Your task to perform on an android device: Open Wikipedia Image 0: 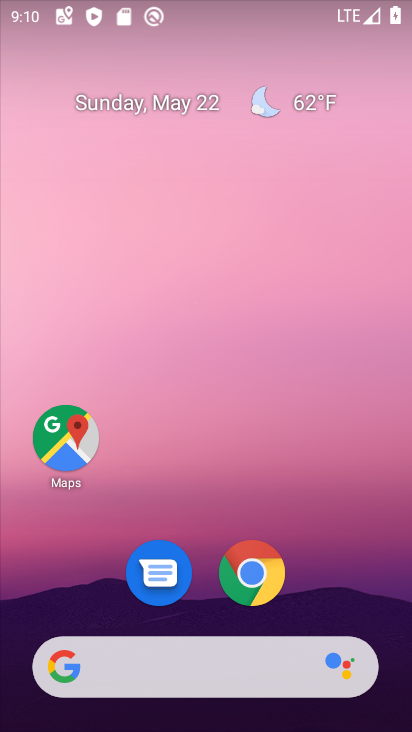
Step 0: drag from (262, 638) to (263, 83)
Your task to perform on an android device: Open Wikipedia Image 1: 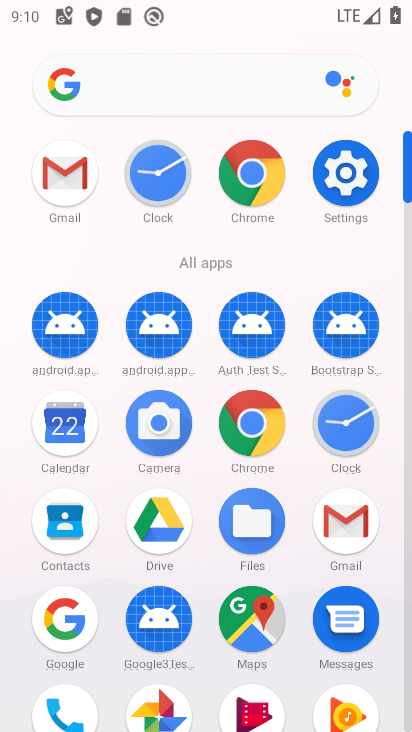
Step 1: click (243, 435)
Your task to perform on an android device: Open Wikipedia Image 2: 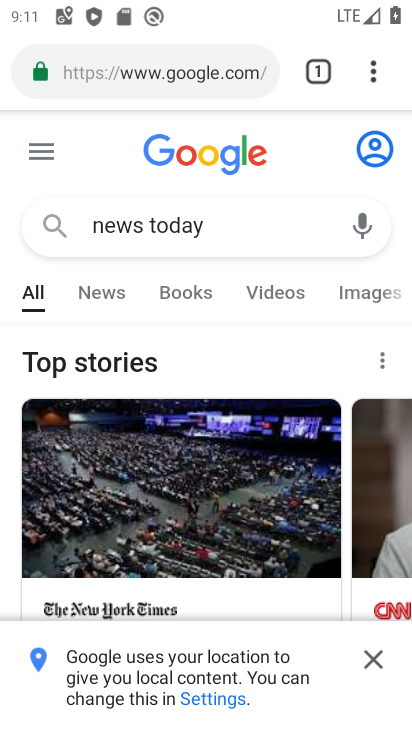
Step 2: click (229, 75)
Your task to perform on an android device: Open Wikipedia Image 3: 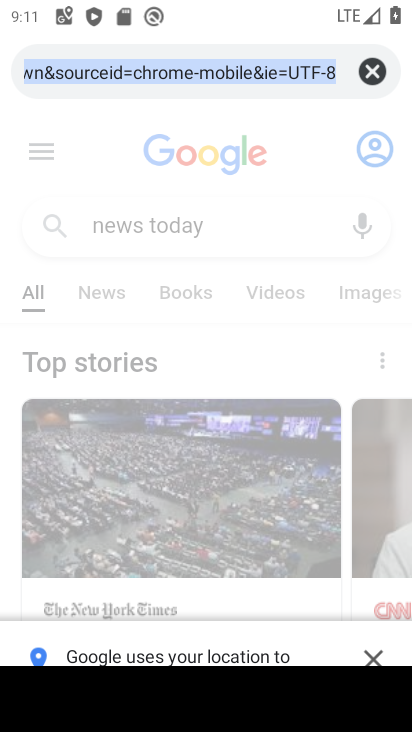
Step 3: click (376, 83)
Your task to perform on an android device: Open Wikipedia Image 4: 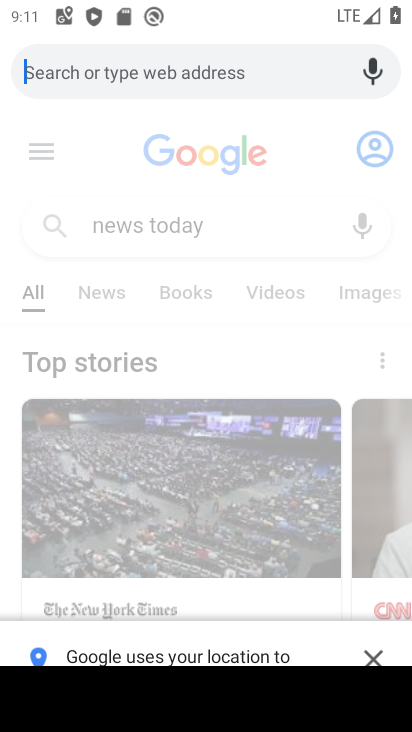
Step 4: type "wikipedia"
Your task to perform on an android device: Open Wikipedia Image 5: 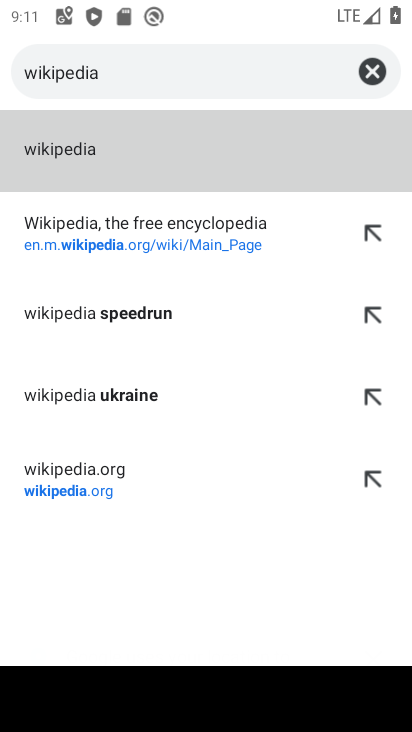
Step 5: click (235, 163)
Your task to perform on an android device: Open Wikipedia Image 6: 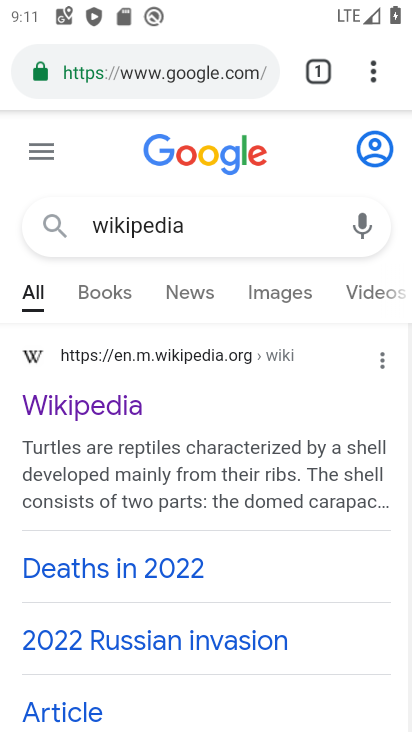
Step 6: click (84, 401)
Your task to perform on an android device: Open Wikipedia Image 7: 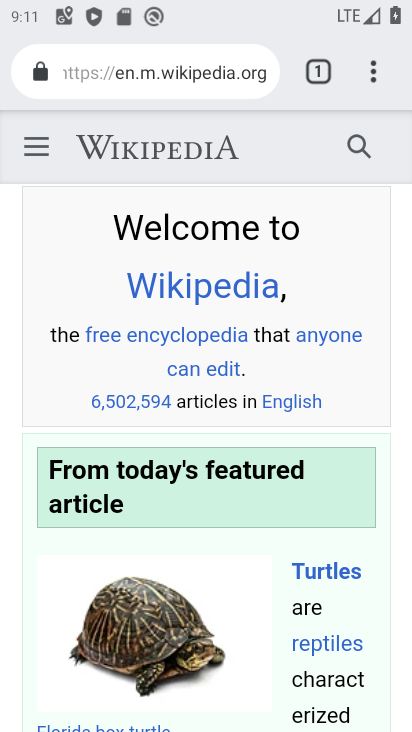
Step 7: task complete